Your task to perform on an android device: Show me productivity apps on the Play Store Image 0: 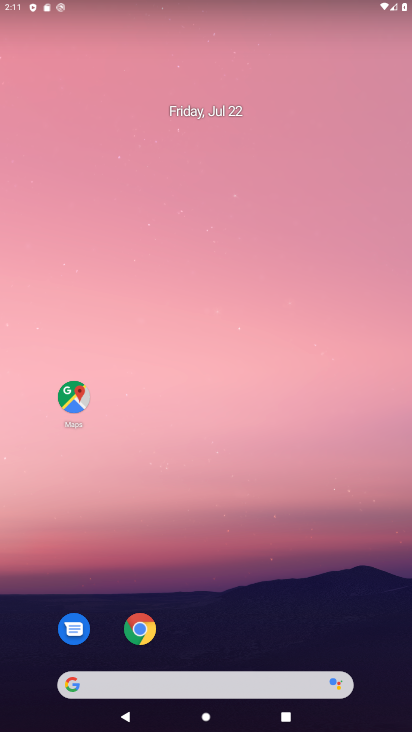
Step 0: drag from (182, 689) to (265, 154)
Your task to perform on an android device: Show me productivity apps on the Play Store Image 1: 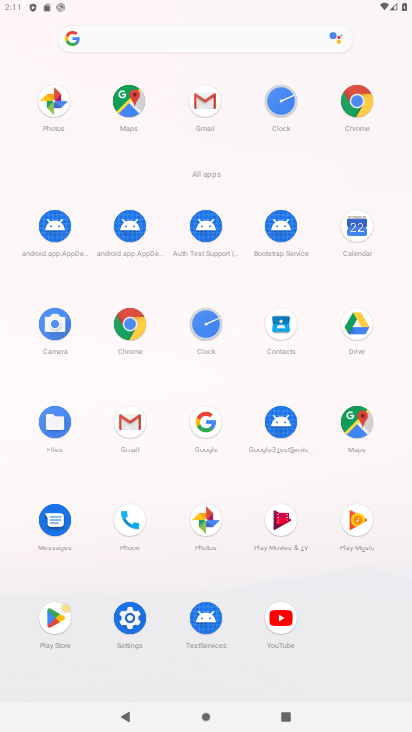
Step 1: click (54, 607)
Your task to perform on an android device: Show me productivity apps on the Play Store Image 2: 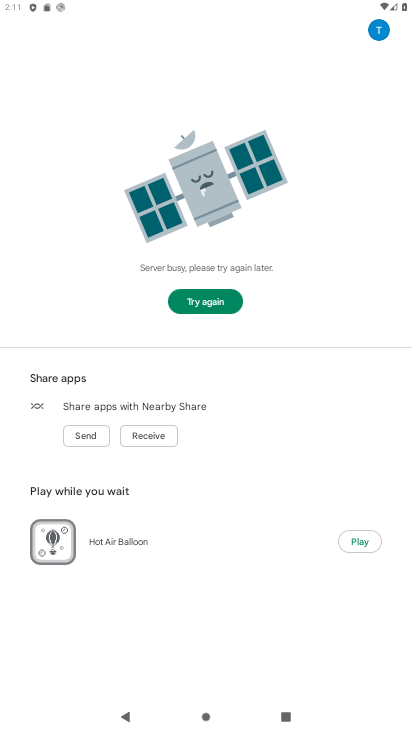
Step 2: task complete